Your task to perform on an android device: Open Android settings Image 0: 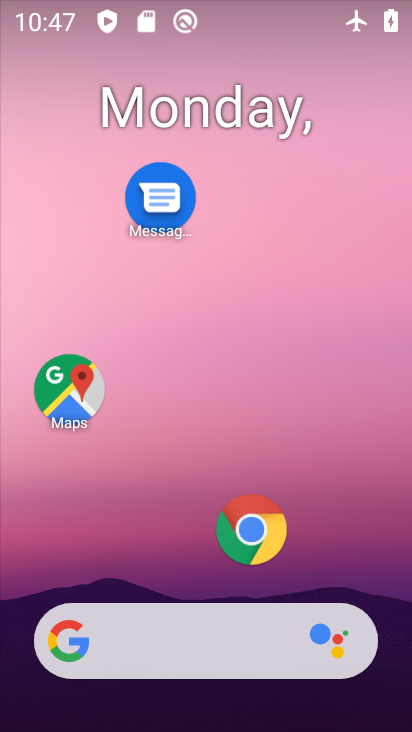
Step 0: drag from (185, 590) to (304, 163)
Your task to perform on an android device: Open Android settings Image 1: 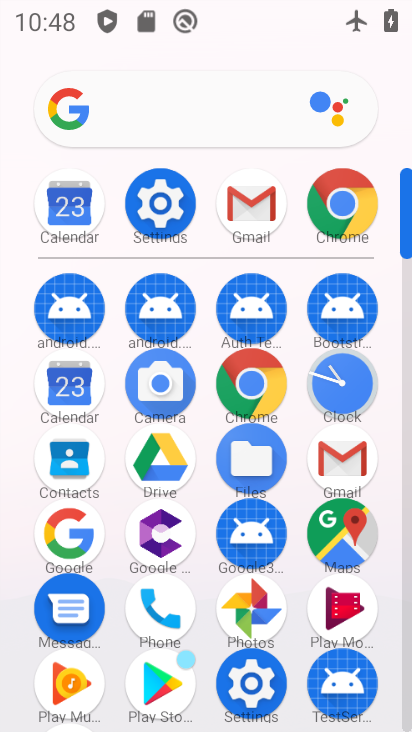
Step 1: click (153, 216)
Your task to perform on an android device: Open Android settings Image 2: 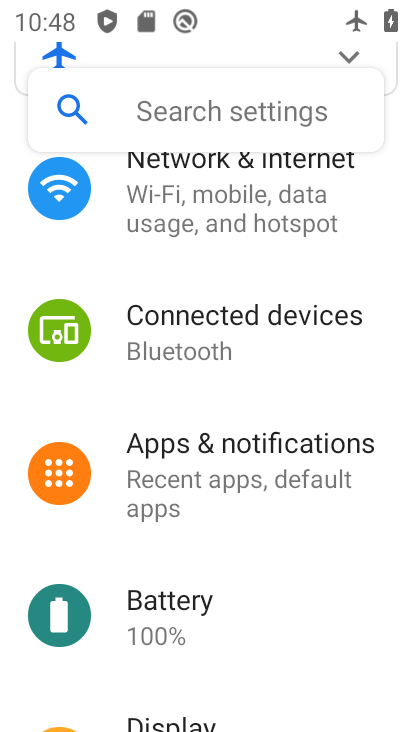
Step 2: task complete